Your task to perform on an android device: What's the weather going to be this weekend? Image 0: 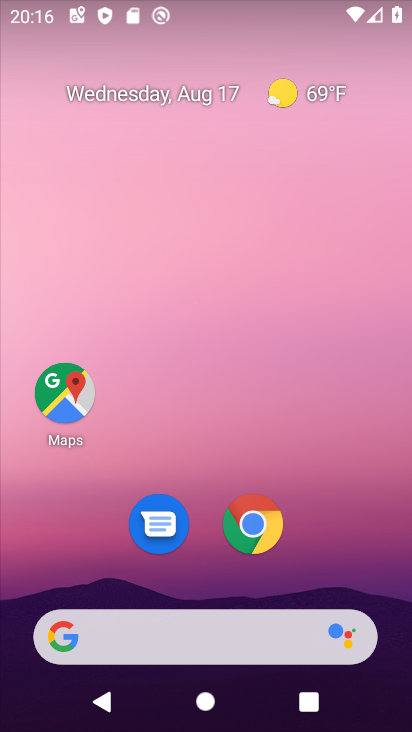
Step 0: click (329, 90)
Your task to perform on an android device: What's the weather going to be this weekend? Image 1: 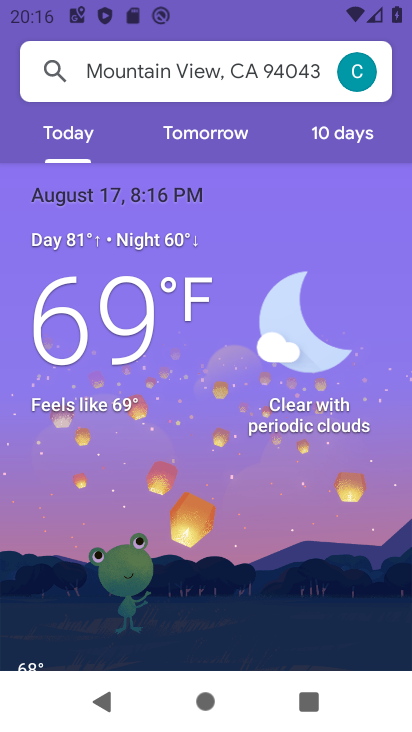
Step 1: click (352, 134)
Your task to perform on an android device: What's the weather going to be this weekend? Image 2: 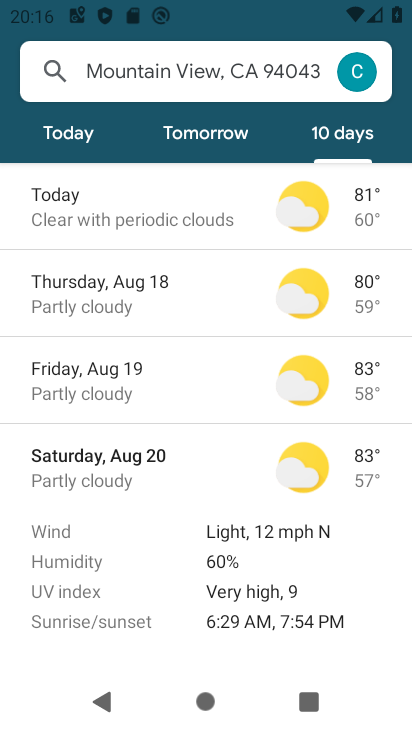
Step 2: task complete